Your task to perform on an android device: Show me popular videos on Youtube Image 0: 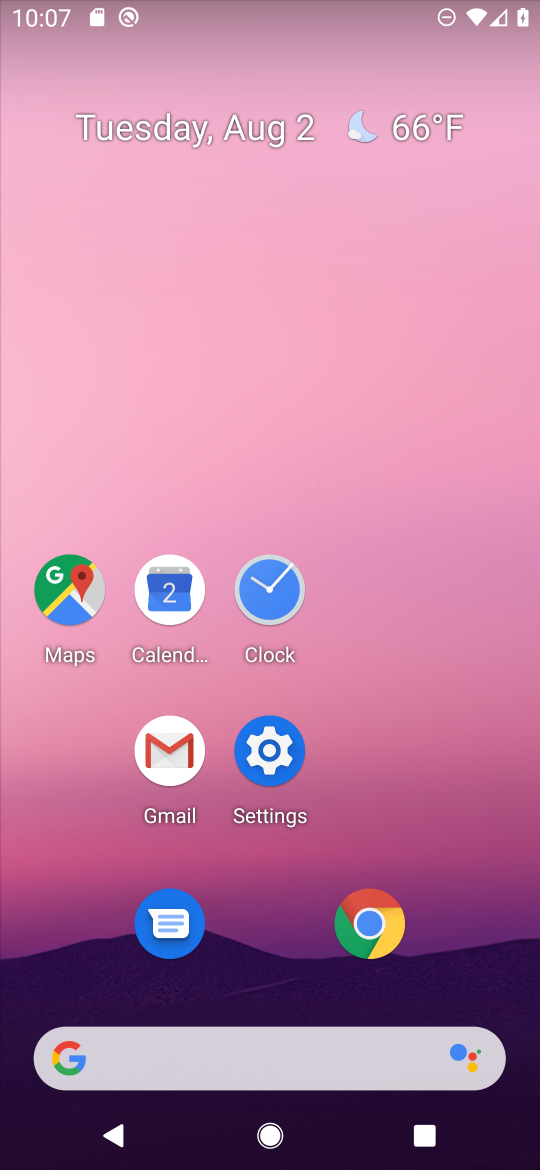
Step 0: drag from (522, 1030) to (442, 226)
Your task to perform on an android device: Show me popular videos on Youtube Image 1: 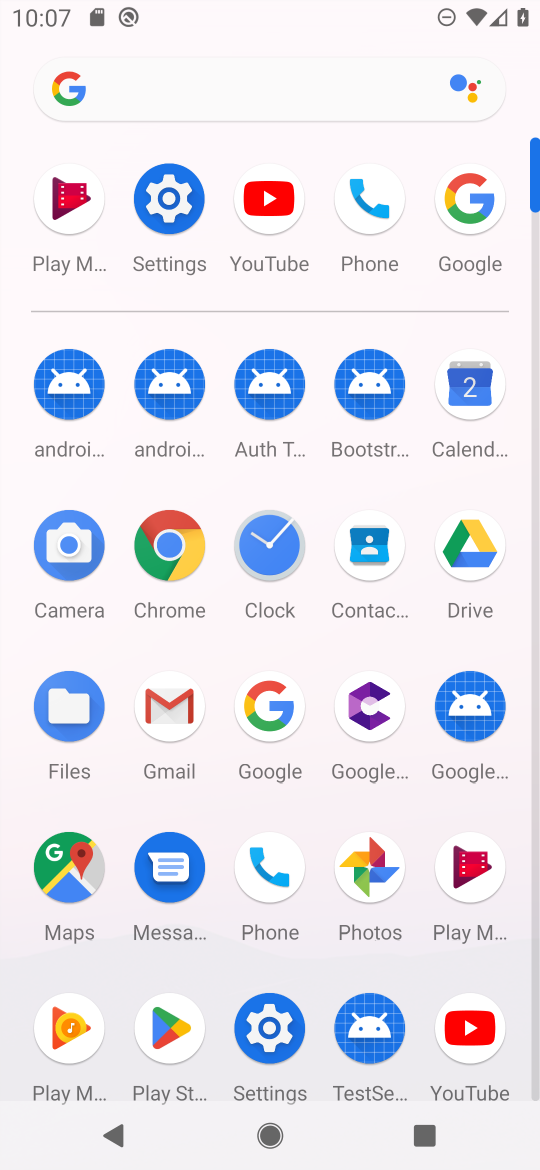
Step 1: click (276, 202)
Your task to perform on an android device: Show me popular videos on Youtube Image 2: 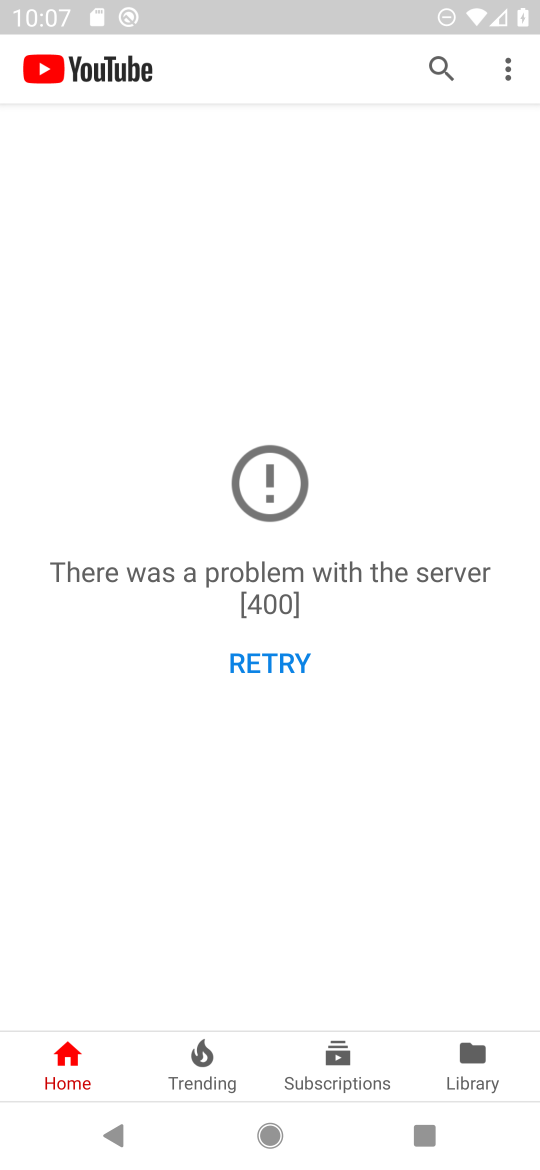
Step 2: task complete